Your task to perform on an android device: Open internet settings Image 0: 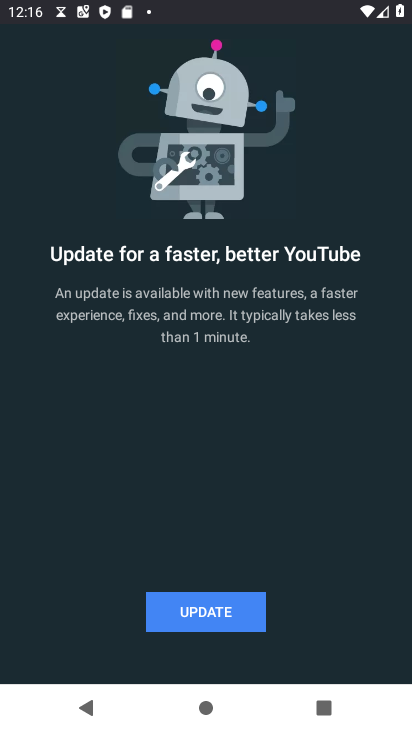
Step 0: press home button
Your task to perform on an android device: Open internet settings Image 1: 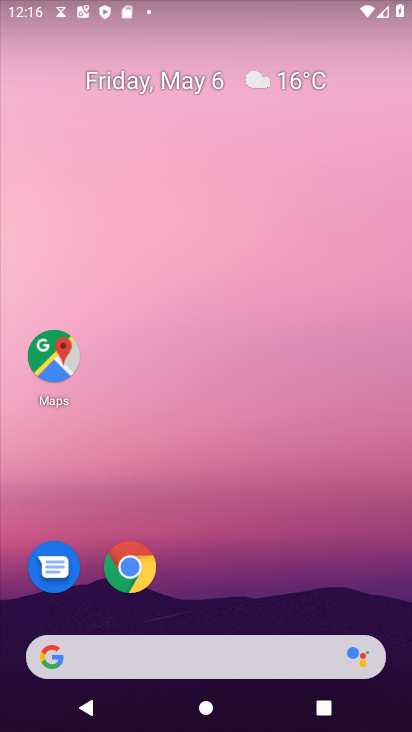
Step 1: drag from (351, 381) to (4, 114)
Your task to perform on an android device: Open internet settings Image 2: 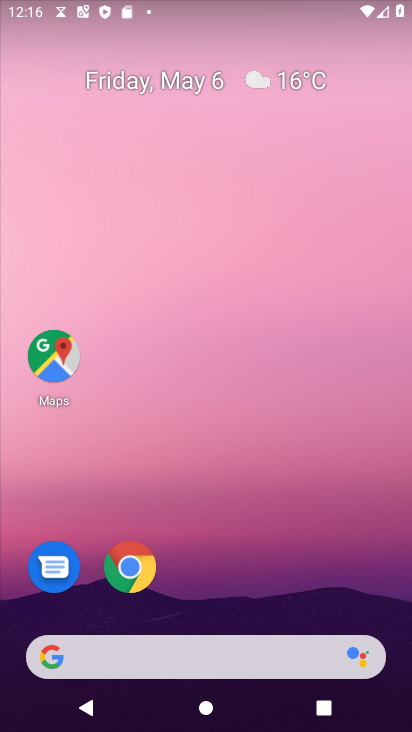
Step 2: drag from (243, 579) to (297, 11)
Your task to perform on an android device: Open internet settings Image 3: 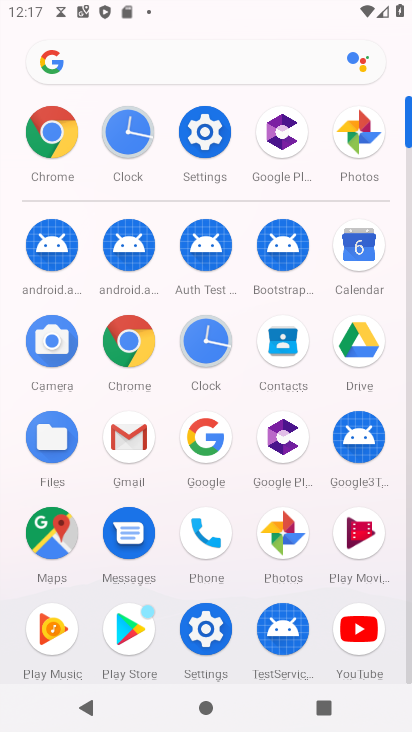
Step 3: click (205, 131)
Your task to perform on an android device: Open internet settings Image 4: 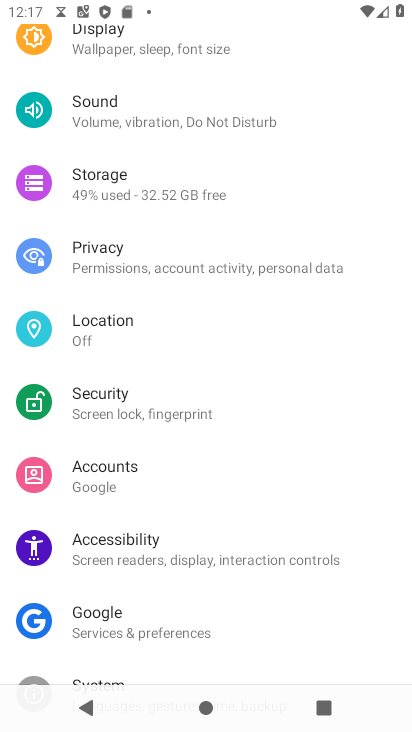
Step 4: drag from (197, 170) to (238, 518)
Your task to perform on an android device: Open internet settings Image 5: 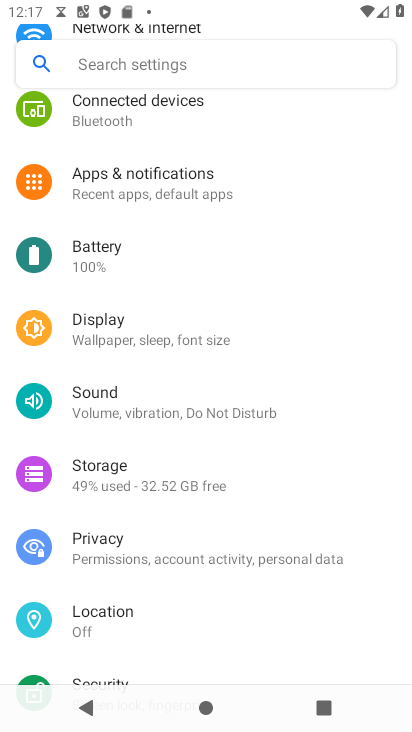
Step 5: drag from (227, 186) to (221, 449)
Your task to perform on an android device: Open internet settings Image 6: 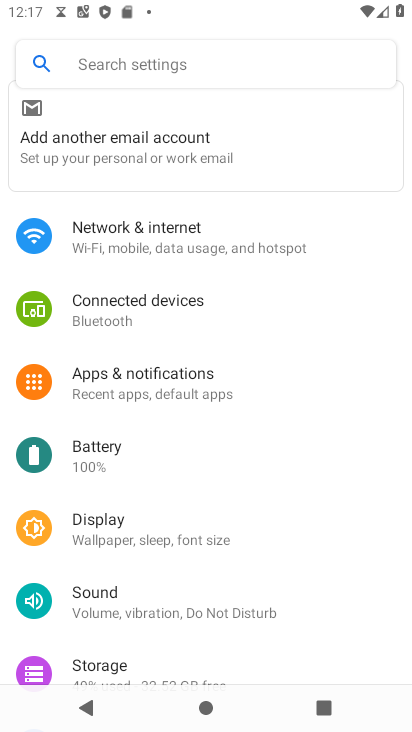
Step 6: click (131, 219)
Your task to perform on an android device: Open internet settings Image 7: 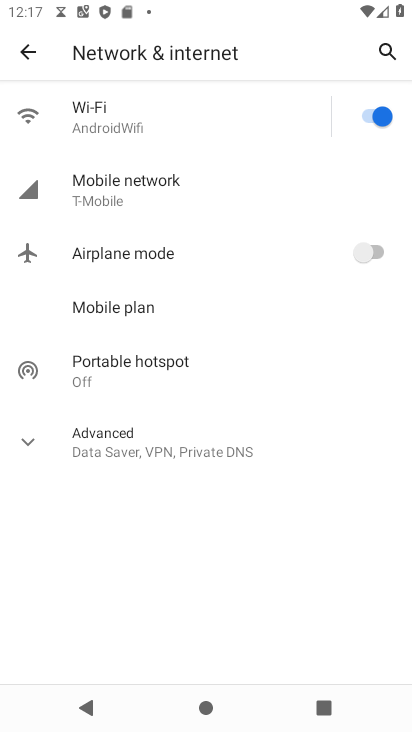
Step 7: click (118, 195)
Your task to perform on an android device: Open internet settings Image 8: 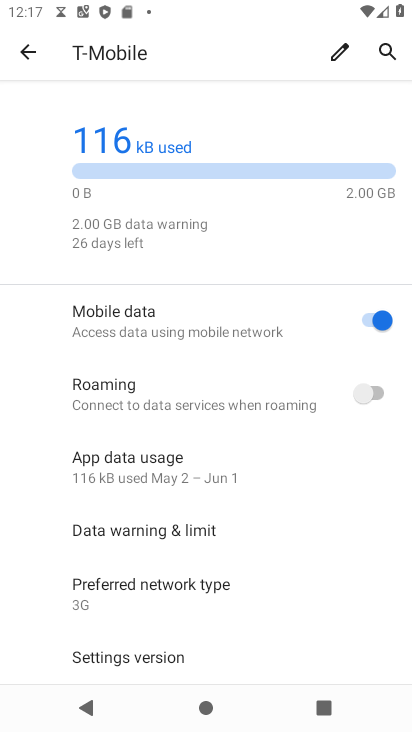
Step 8: task complete